Your task to perform on an android device: Check the news Image 0: 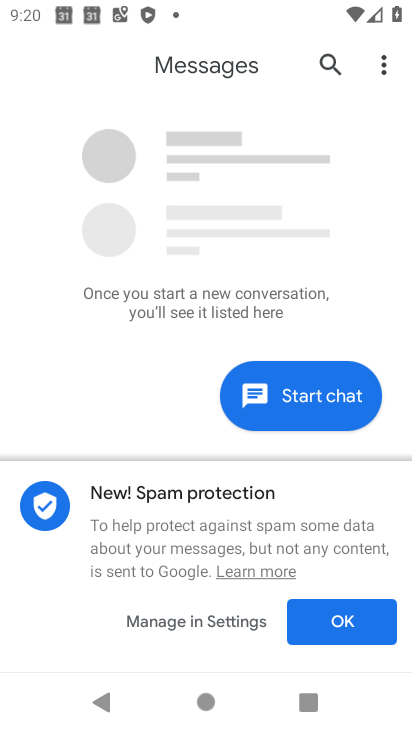
Step 0: press home button
Your task to perform on an android device: Check the news Image 1: 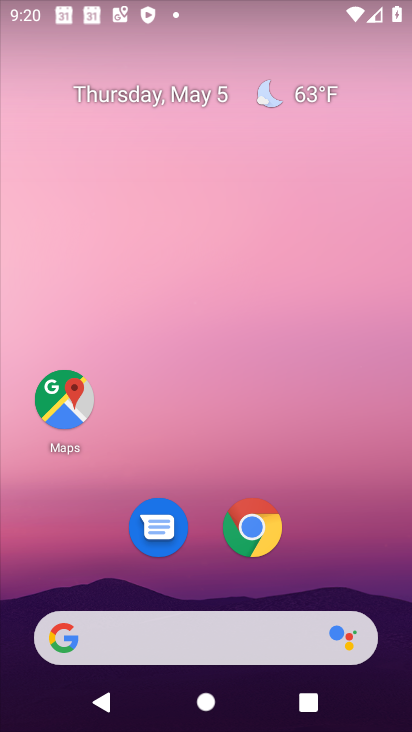
Step 1: click (201, 631)
Your task to perform on an android device: Check the news Image 2: 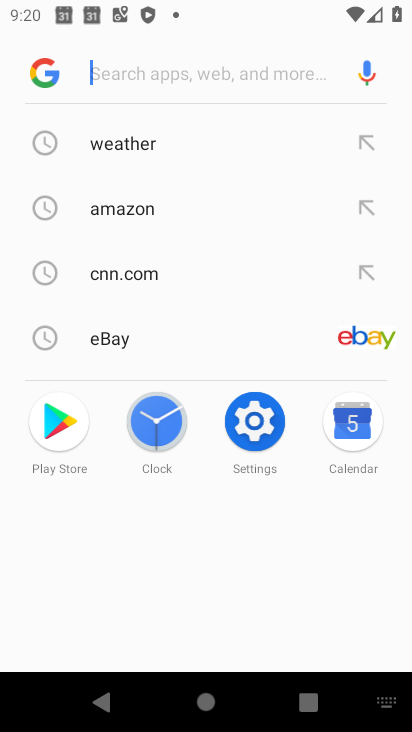
Step 2: type "news"
Your task to perform on an android device: Check the news Image 3: 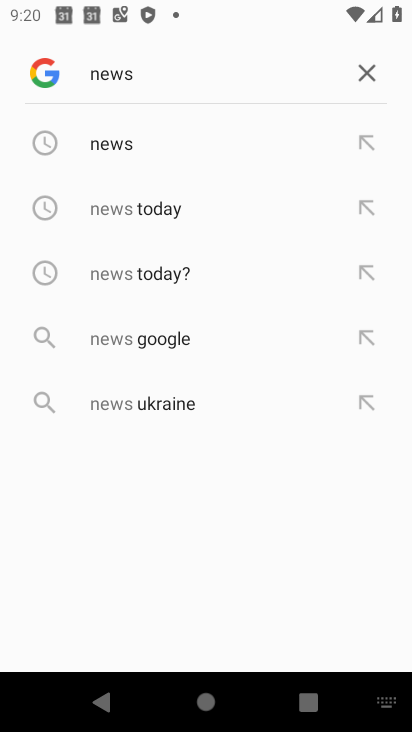
Step 3: click (140, 154)
Your task to perform on an android device: Check the news Image 4: 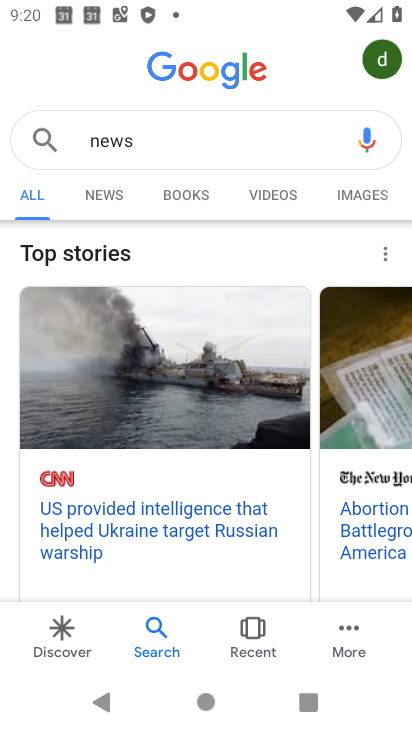
Step 4: task complete